Your task to perform on an android device: Open sound settings Image 0: 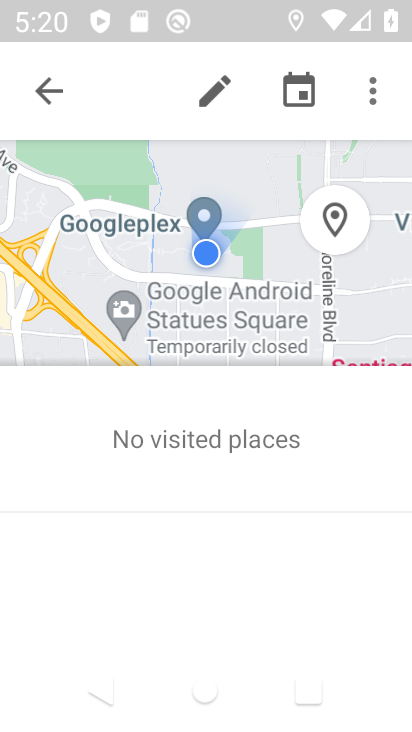
Step 0: press home button
Your task to perform on an android device: Open sound settings Image 1: 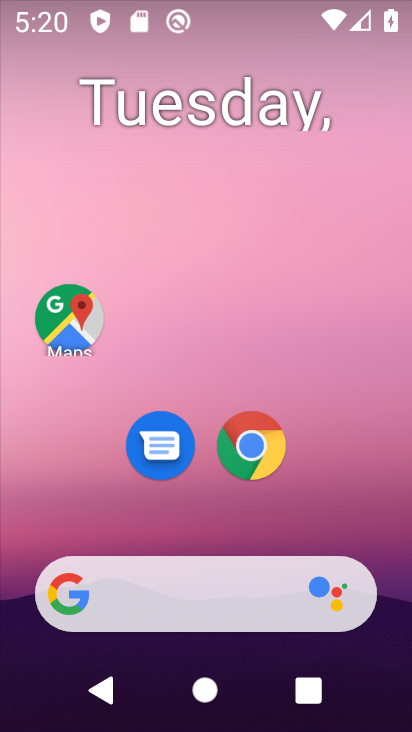
Step 1: drag from (286, 501) to (294, 97)
Your task to perform on an android device: Open sound settings Image 2: 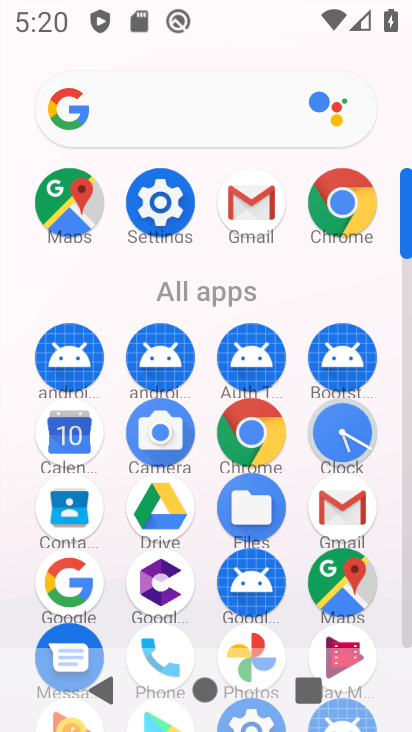
Step 2: click (161, 204)
Your task to perform on an android device: Open sound settings Image 3: 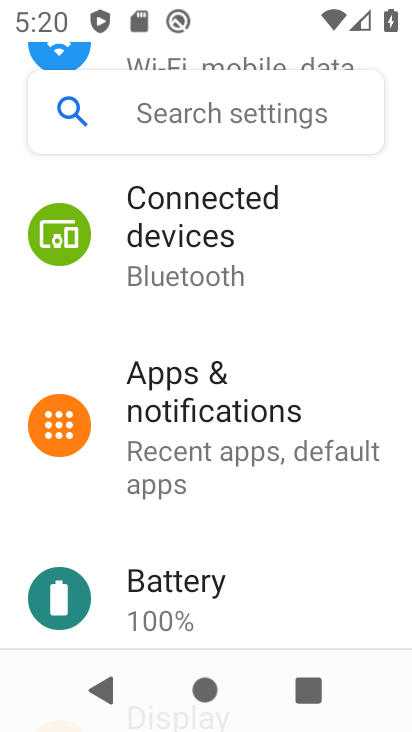
Step 3: drag from (288, 597) to (316, 269)
Your task to perform on an android device: Open sound settings Image 4: 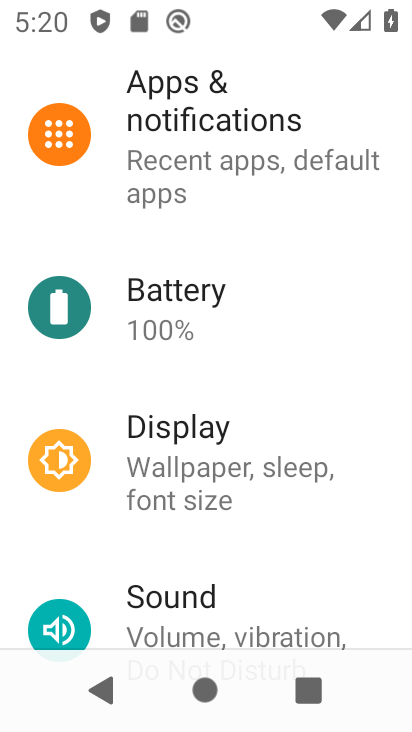
Step 4: click (182, 602)
Your task to perform on an android device: Open sound settings Image 5: 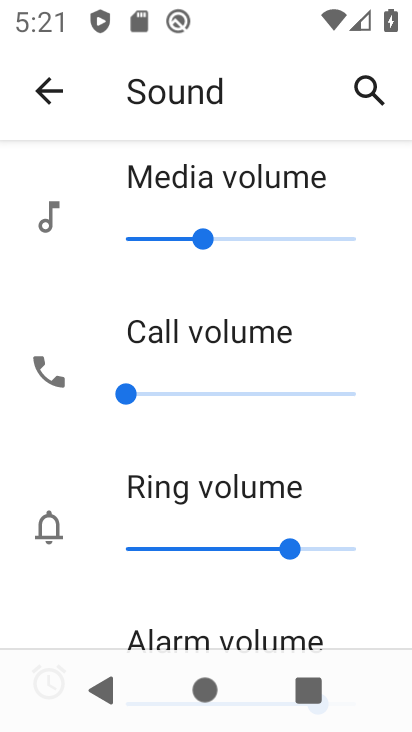
Step 5: task complete